Your task to perform on an android device: turn off priority inbox in the gmail app Image 0: 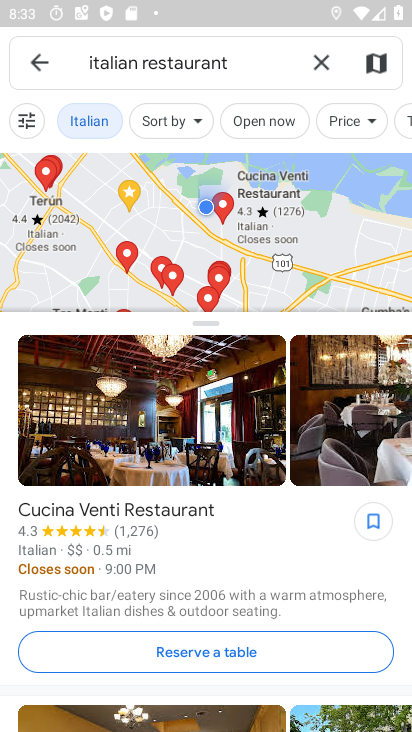
Step 0: press back button
Your task to perform on an android device: turn off priority inbox in the gmail app Image 1: 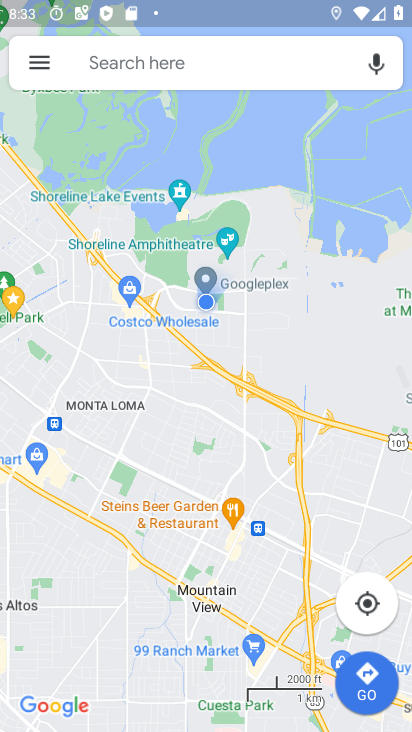
Step 1: press back button
Your task to perform on an android device: turn off priority inbox in the gmail app Image 2: 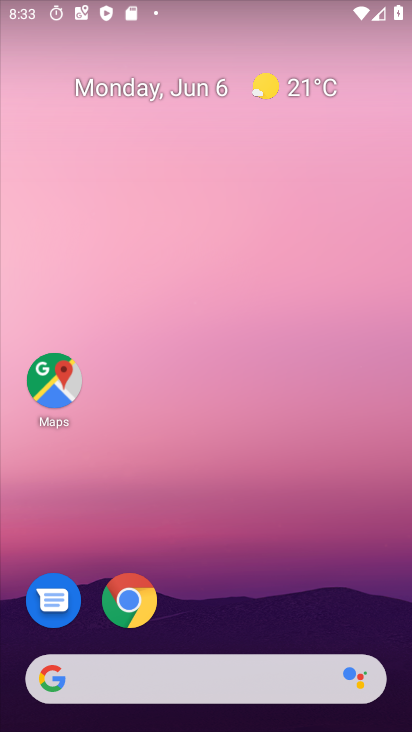
Step 2: drag from (245, 567) to (215, 34)
Your task to perform on an android device: turn off priority inbox in the gmail app Image 3: 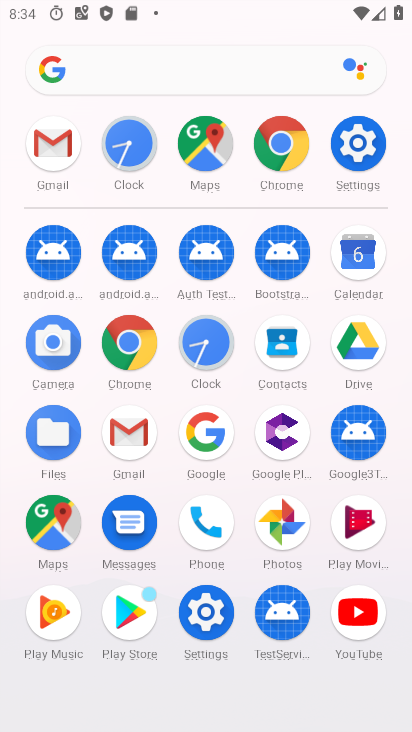
Step 3: click (130, 428)
Your task to perform on an android device: turn off priority inbox in the gmail app Image 4: 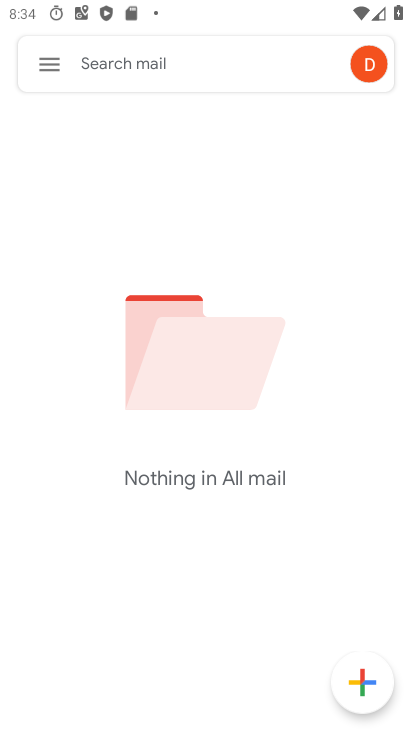
Step 4: click (41, 46)
Your task to perform on an android device: turn off priority inbox in the gmail app Image 5: 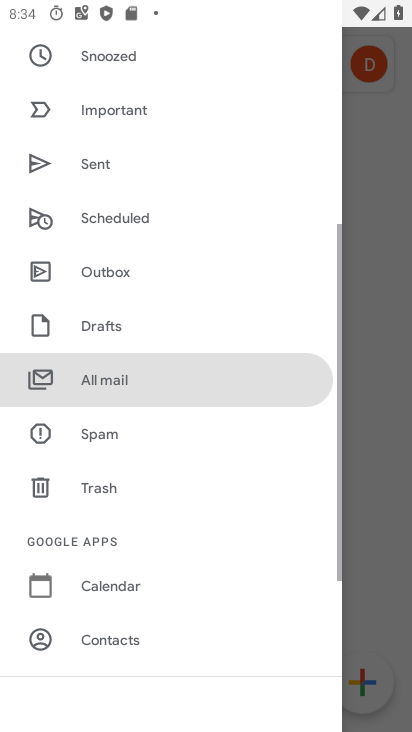
Step 5: drag from (143, 593) to (180, 213)
Your task to perform on an android device: turn off priority inbox in the gmail app Image 6: 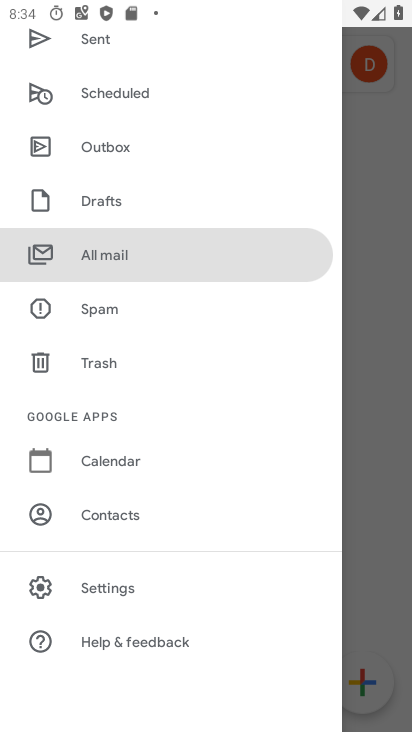
Step 6: click (138, 580)
Your task to perform on an android device: turn off priority inbox in the gmail app Image 7: 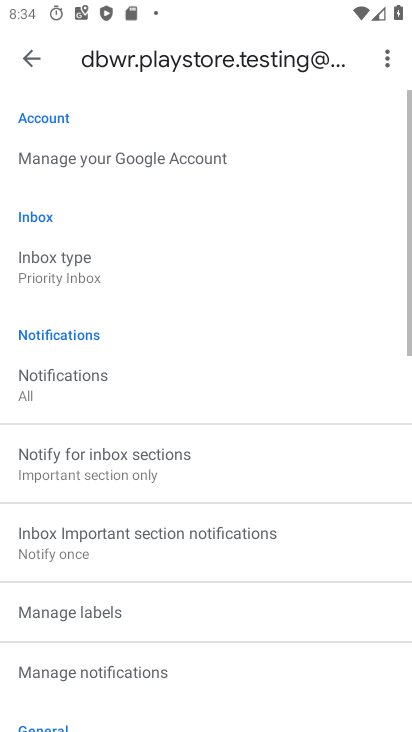
Step 7: drag from (183, 610) to (249, 276)
Your task to perform on an android device: turn off priority inbox in the gmail app Image 8: 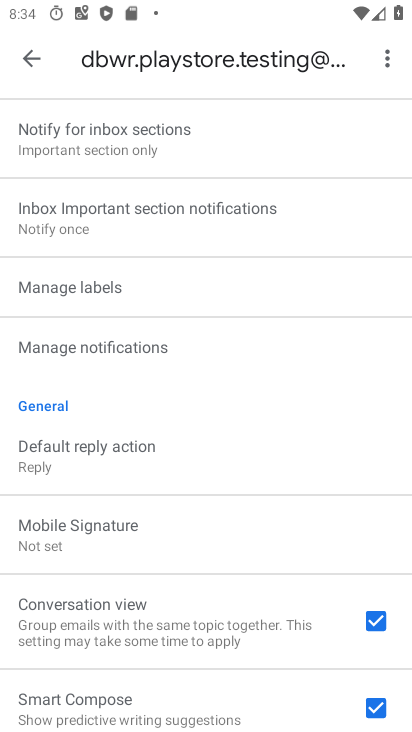
Step 8: drag from (211, 572) to (243, 168)
Your task to perform on an android device: turn off priority inbox in the gmail app Image 9: 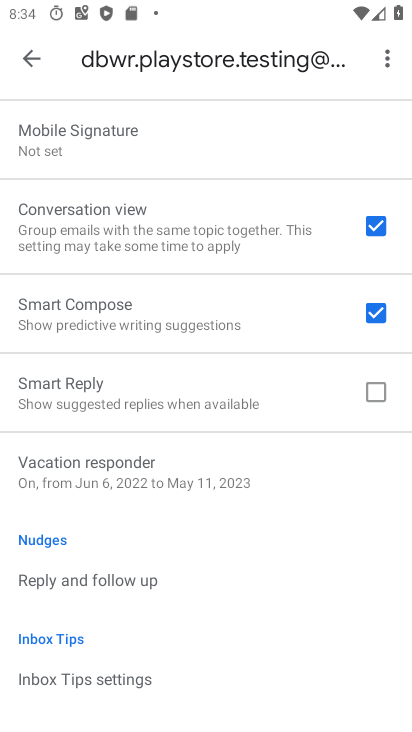
Step 9: drag from (149, 598) to (214, 225)
Your task to perform on an android device: turn off priority inbox in the gmail app Image 10: 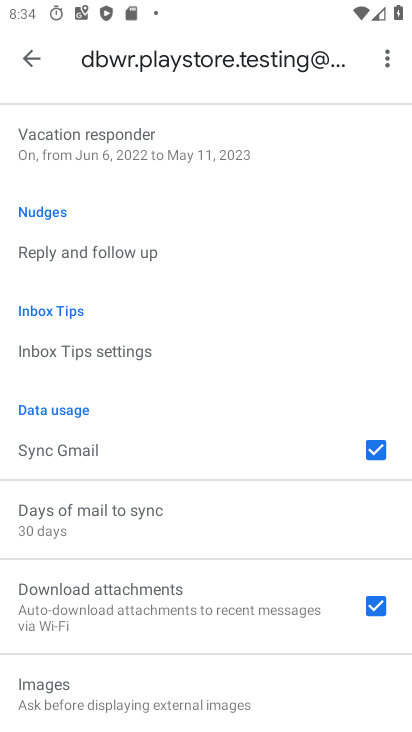
Step 10: drag from (207, 592) to (230, 192)
Your task to perform on an android device: turn off priority inbox in the gmail app Image 11: 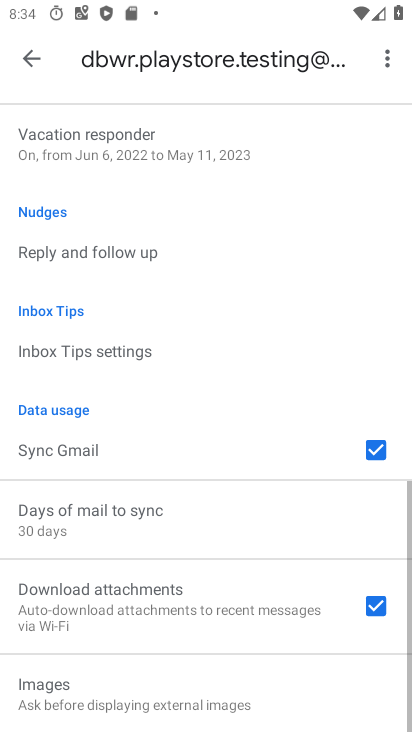
Step 11: drag from (230, 208) to (236, 606)
Your task to perform on an android device: turn off priority inbox in the gmail app Image 12: 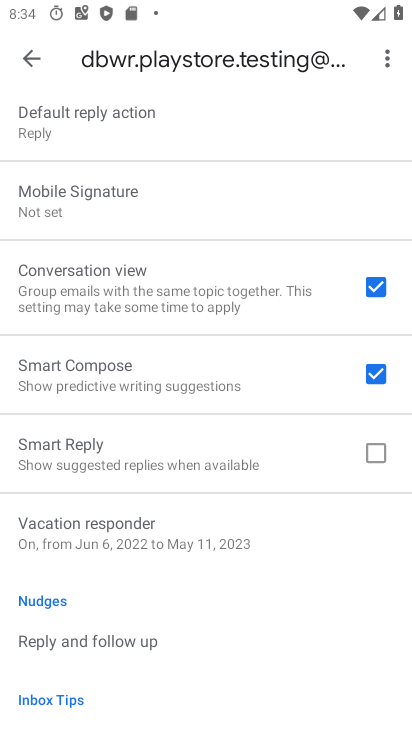
Step 12: drag from (186, 604) to (243, 211)
Your task to perform on an android device: turn off priority inbox in the gmail app Image 13: 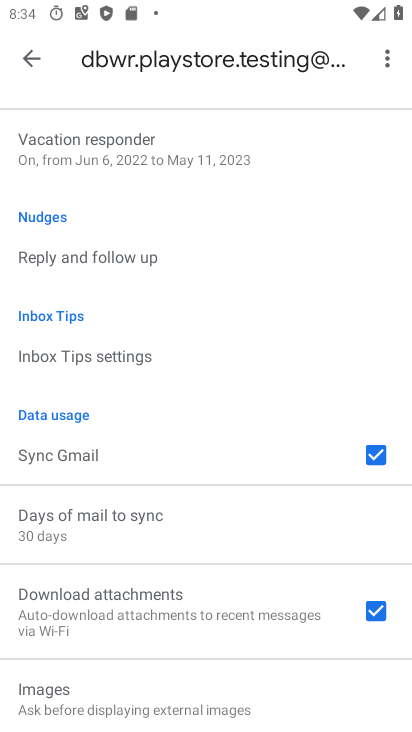
Step 13: drag from (244, 269) to (232, 650)
Your task to perform on an android device: turn off priority inbox in the gmail app Image 14: 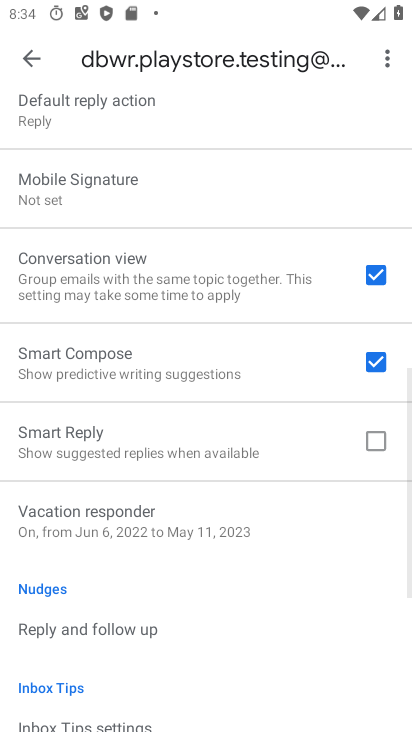
Step 14: drag from (208, 226) to (221, 685)
Your task to perform on an android device: turn off priority inbox in the gmail app Image 15: 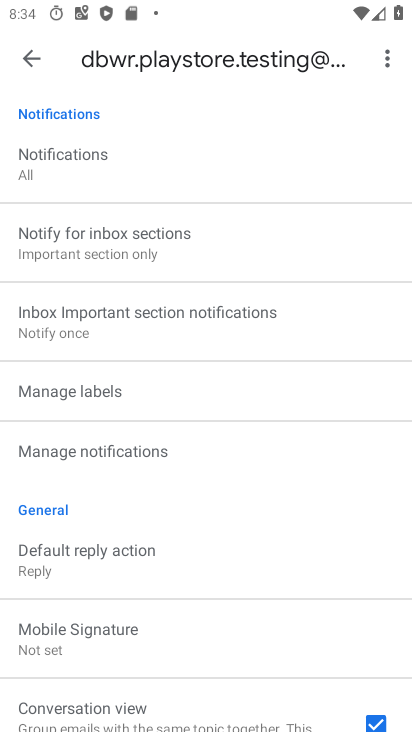
Step 15: drag from (209, 270) to (217, 664)
Your task to perform on an android device: turn off priority inbox in the gmail app Image 16: 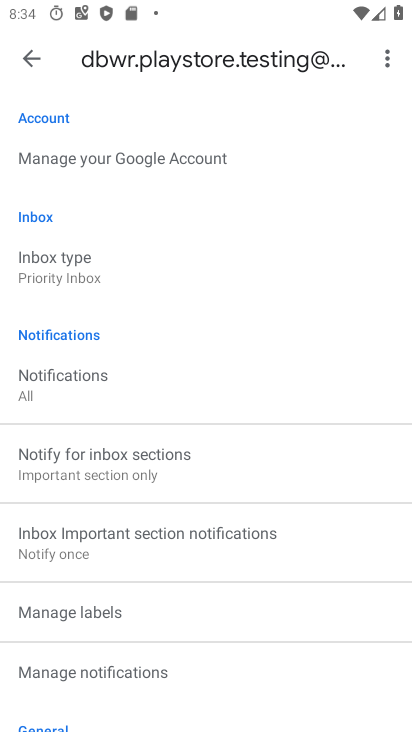
Step 16: click (127, 259)
Your task to perform on an android device: turn off priority inbox in the gmail app Image 17: 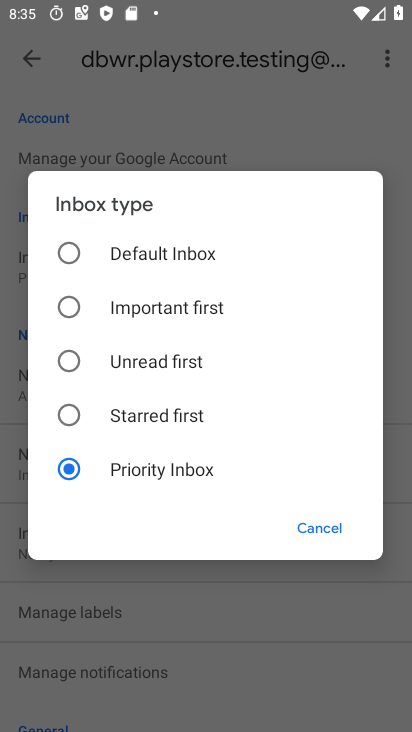
Step 17: click (127, 259)
Your task to perform on an android device: turn off priority inbox in the gmail app Image 18: 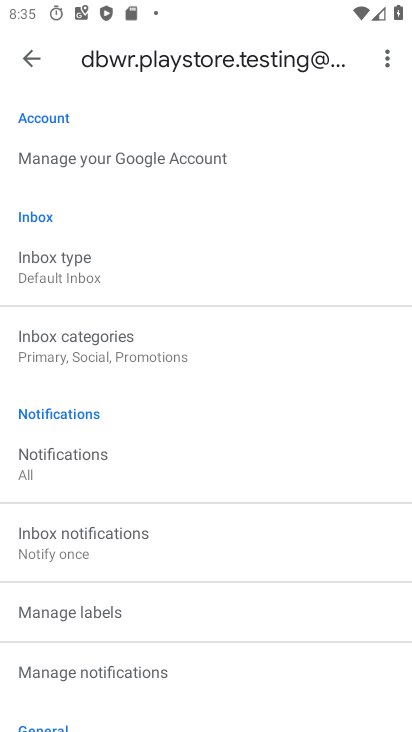
Step 18: task complete